Your task to perform on an android device: turn off sleep mode Image 0: 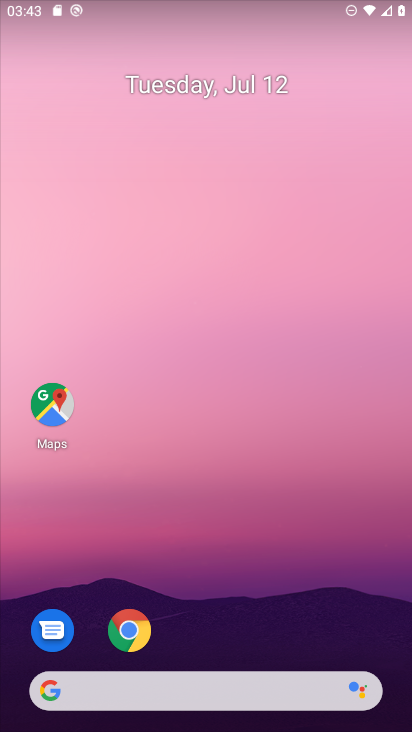
Step 0: press home button
Your task to perform on an android device: turn off sleep mode Image 1: 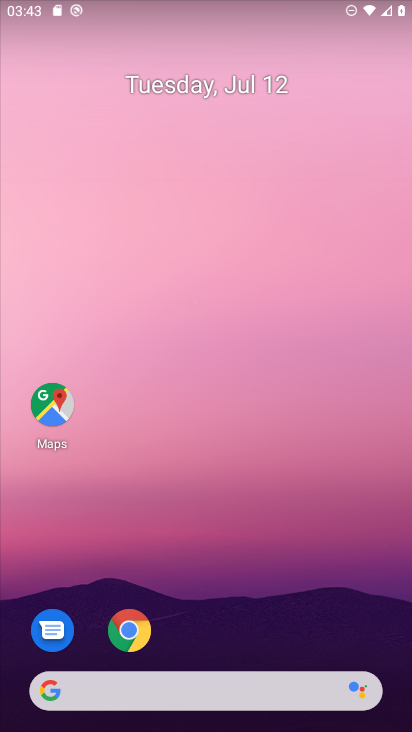
Step 1: drag from (349, 623) to (302, 5)
Your task to perform on an android device: turn off sleep mode Image 2: 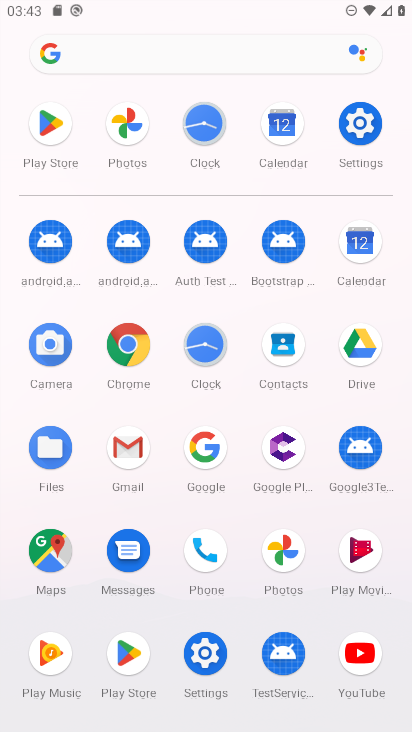
Step 2: click (210, 652)
Your task to perform on an android device: turn off sleep mode Image 3: 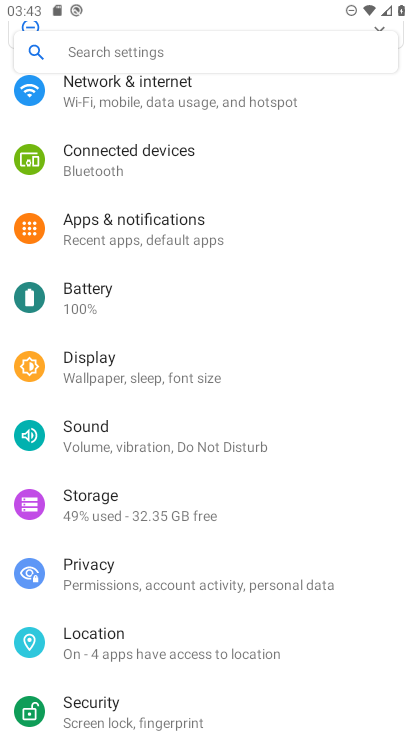
Step 3: click (93, 365)
Your task to perform on an android device: turn off sleep mode Image 4: 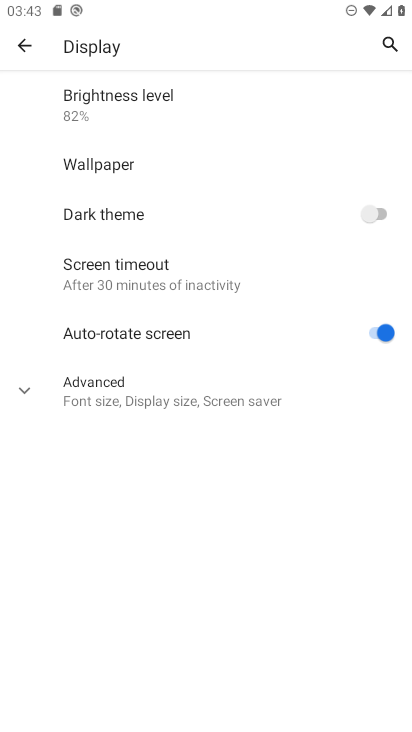
Step 4: click (21, 393)
Your task to perform on an android device: turn off sleep mode Image 5: 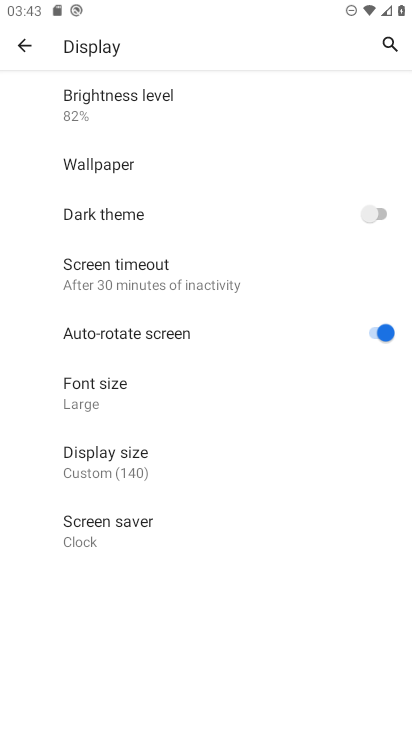
Step 5: task complete